Your task to perform on an android device: Search for the best-rated coffee table on Crate & Barrel Image 0: 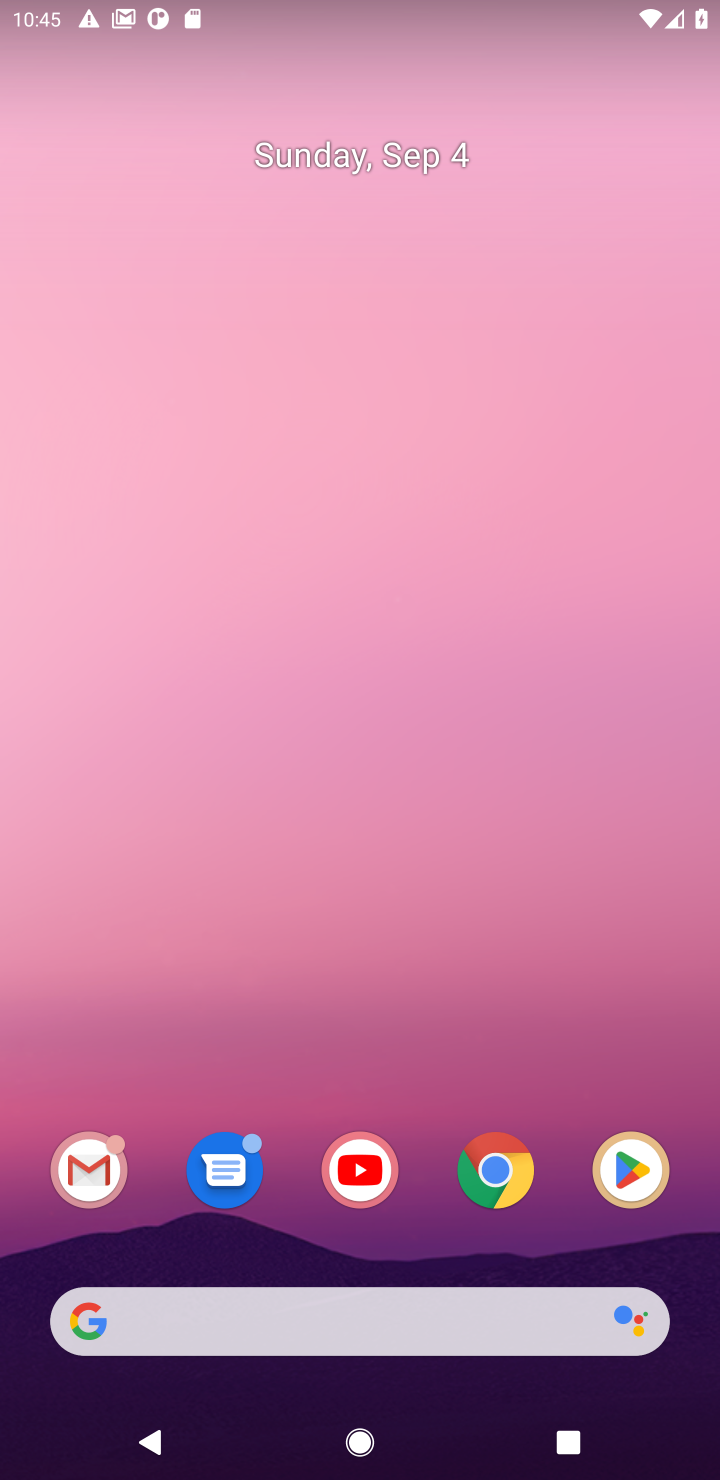
Step 0: drag from (464, 1287) to (274, 8)
Your task to perform on an android device: Search for the best-rated coffee table on Crate & Barrel Image 1: 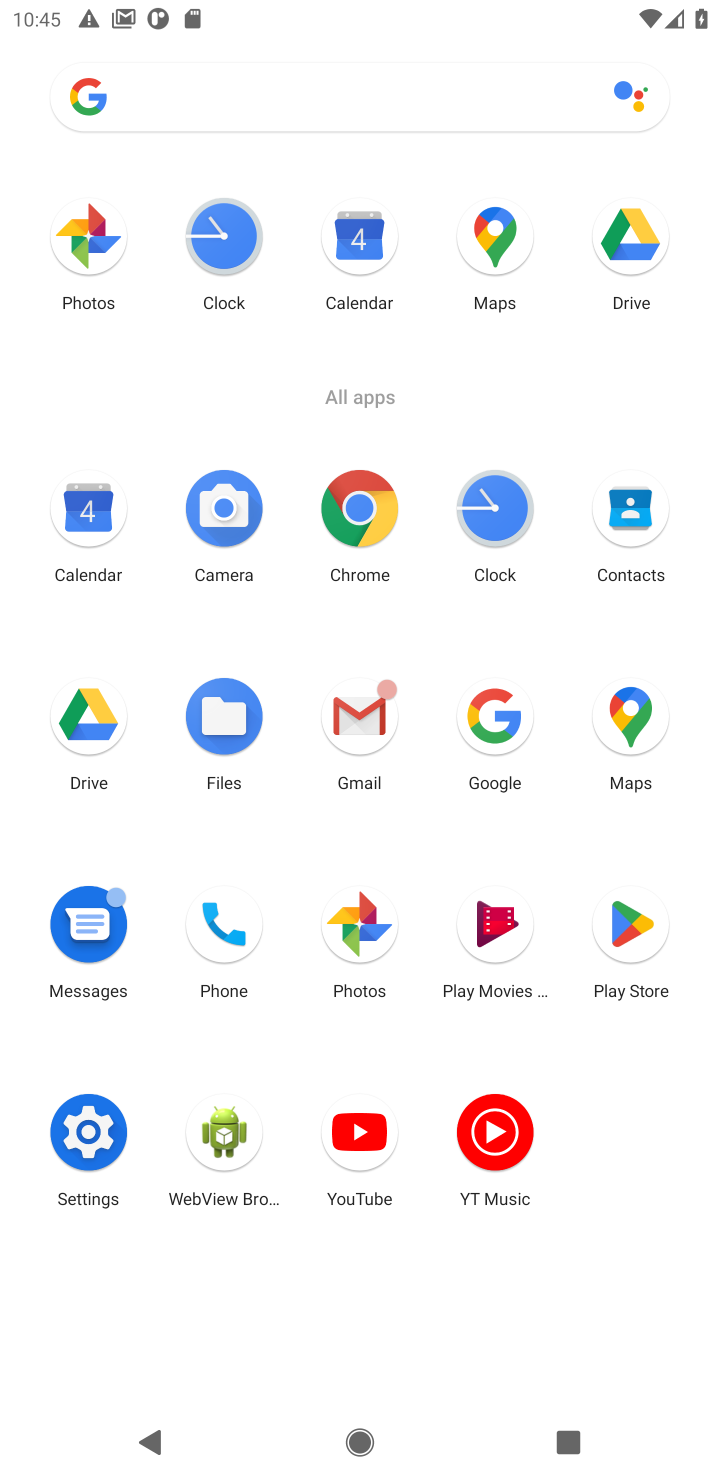
Step 1: click (378, 508)
Your task to perform on an android device: Search for the best-rated coffee table on Crate & Barrel Image 2: 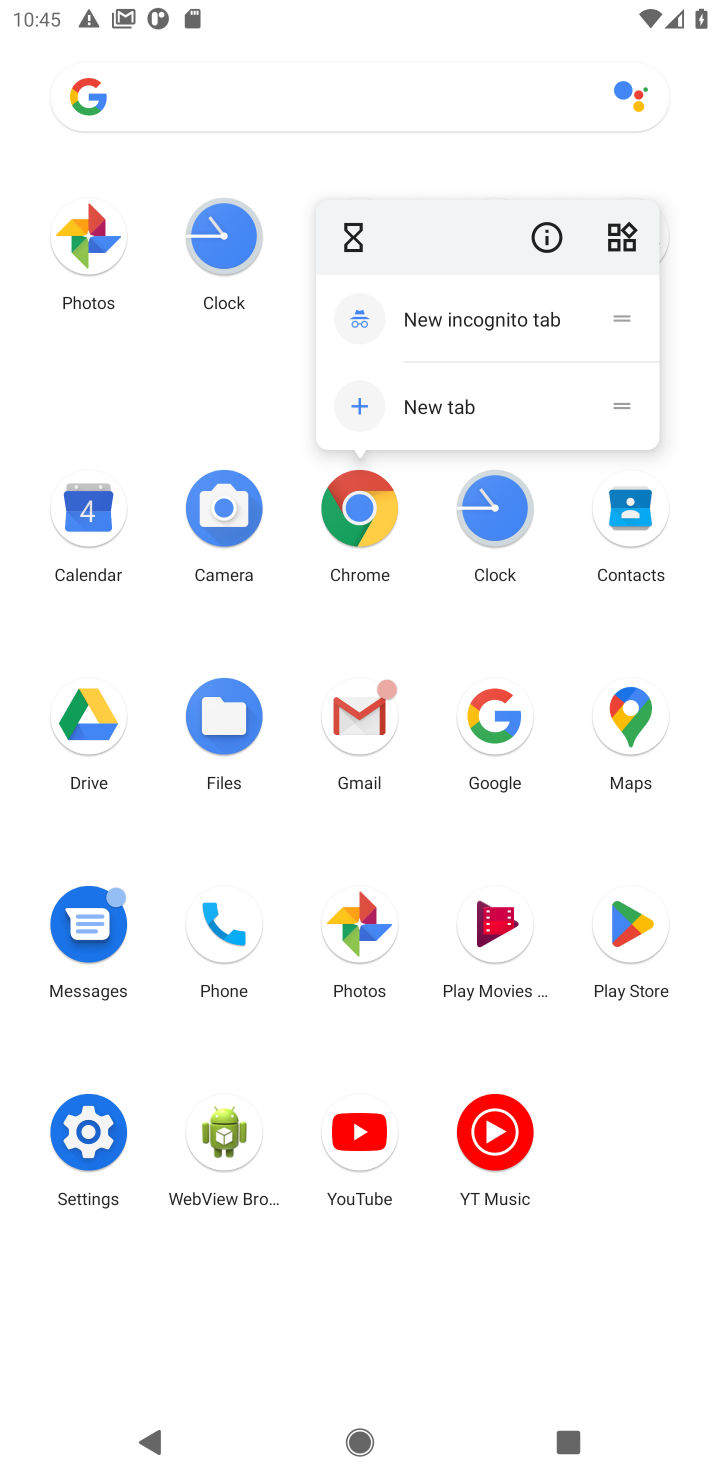
Step 2: click (369, 557)
Your task to perform on an android device: Search for the best-rated coffee table on Crate & Barrel Image 3: 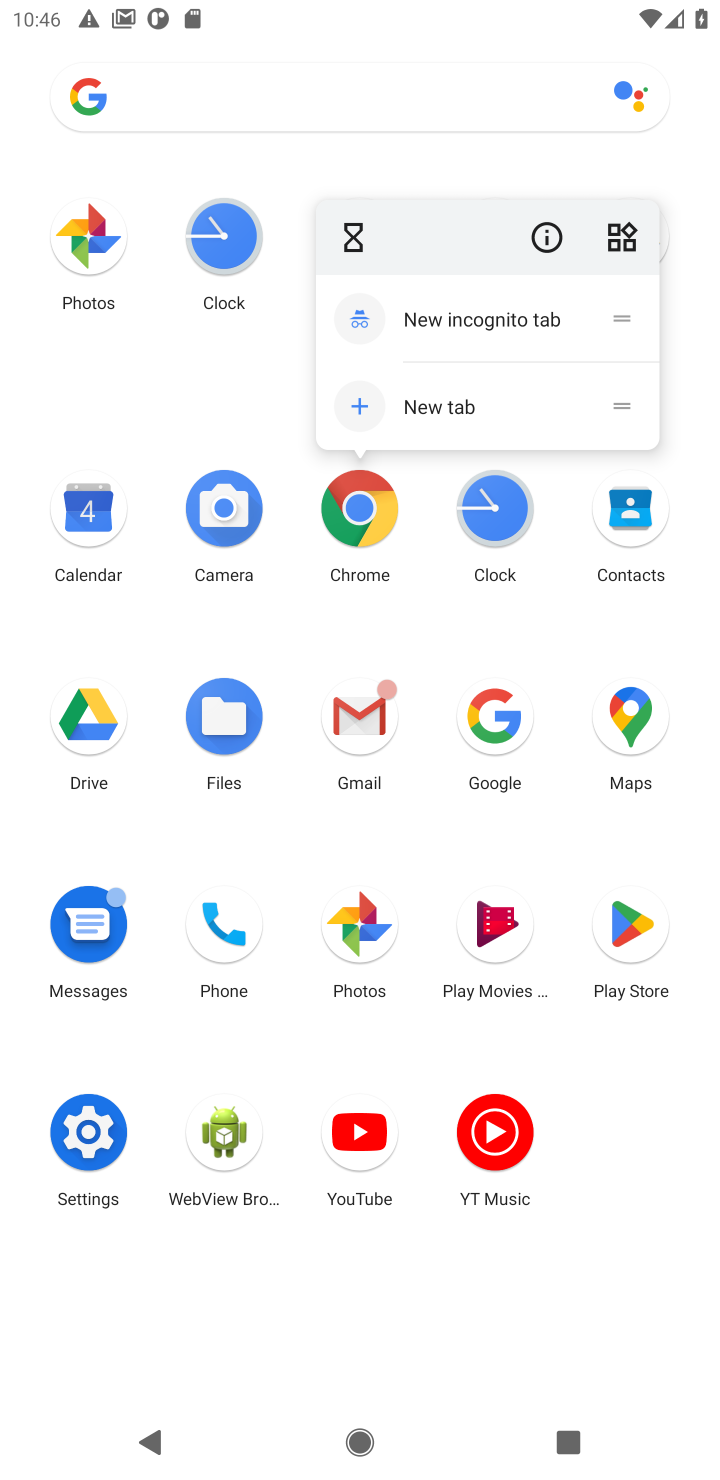
Step 3: click (369, 535)
Your task to perform on an android device: Search for the best-rated coffee table on Crate & Barrel Image 4: 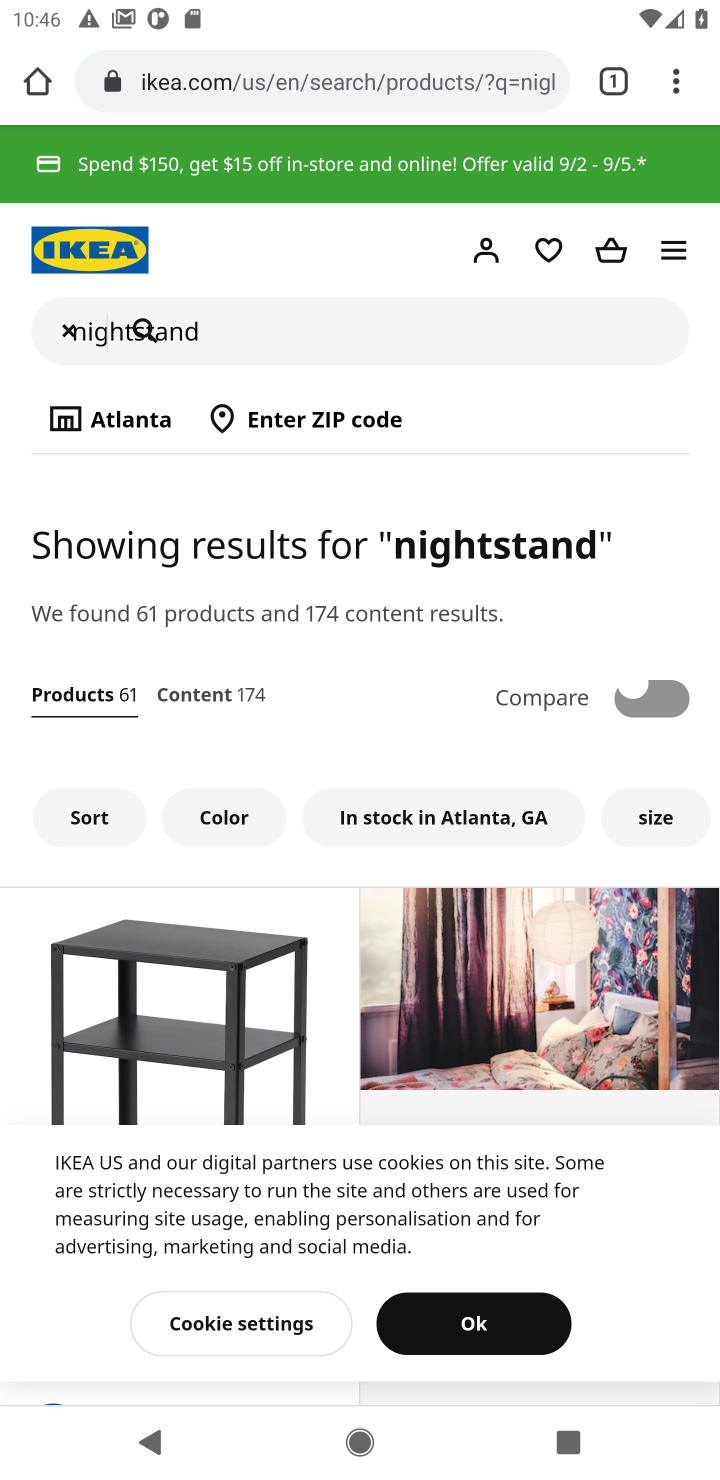
Step 4: press home button
Your task to perform on an android device: Search for the best-rated coffee table on Crate & Barrel Image 5: 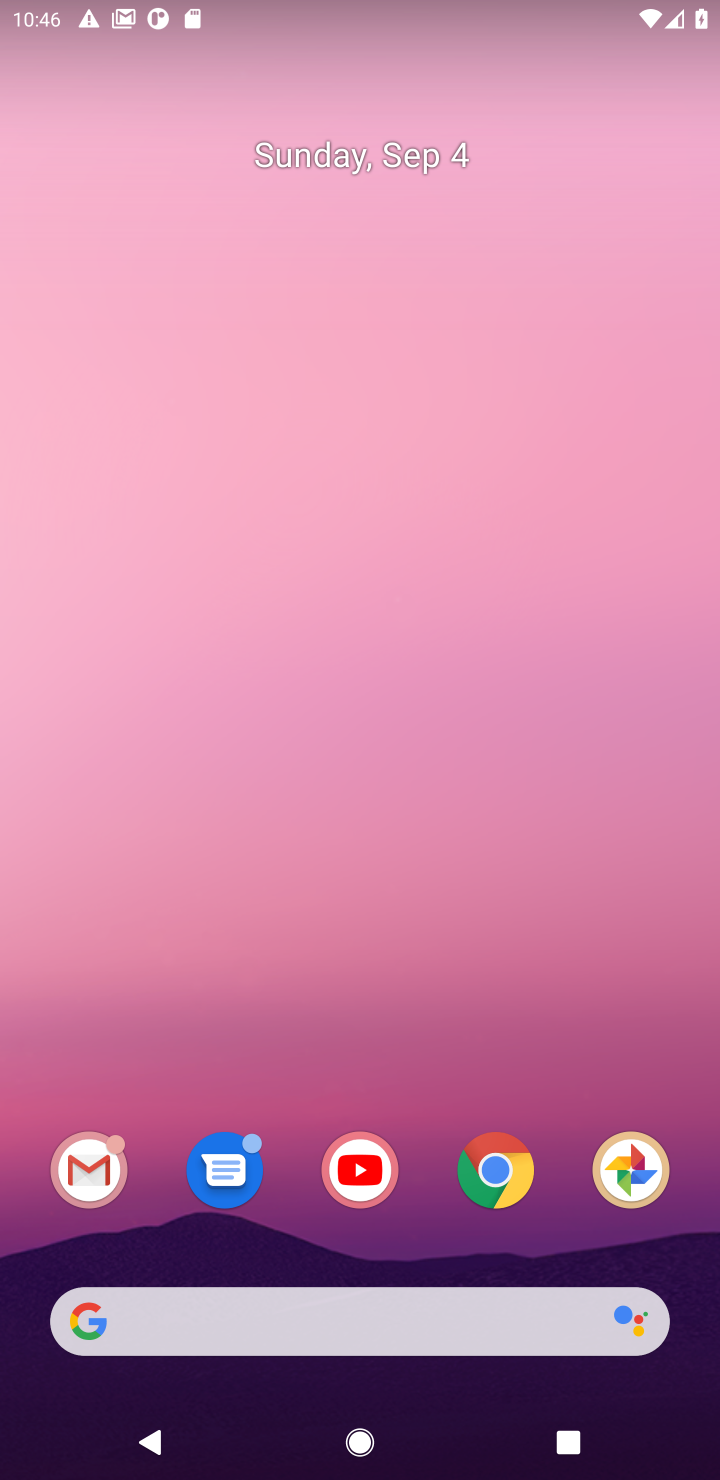
Step 5: click (487, 1207)
Your task to perform on an android device: Search for the best-rated coffee table on Crate & Barrel Image 6: 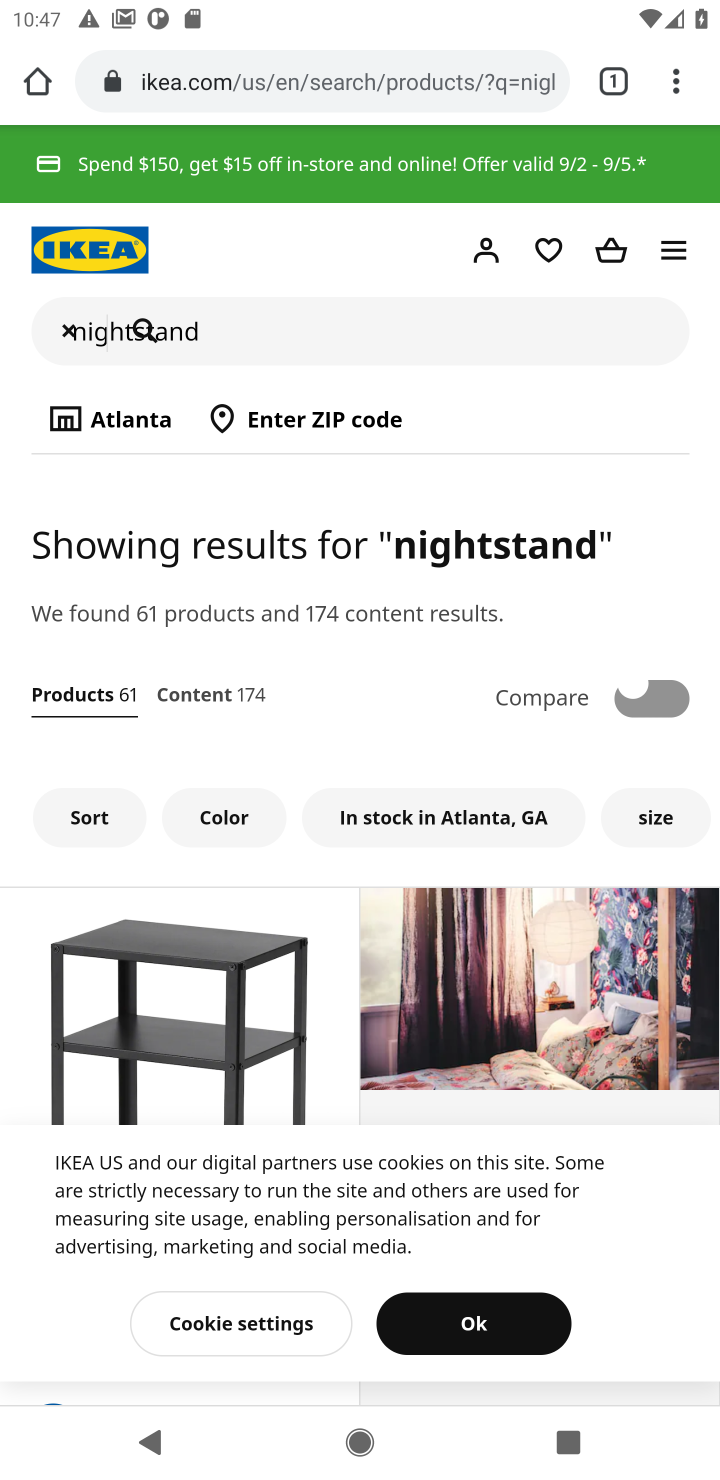
Step 6: click (118, 64)
Your task to perform on an android device: Search for the best-rated coffee table on Crate & Barrel Image 7: 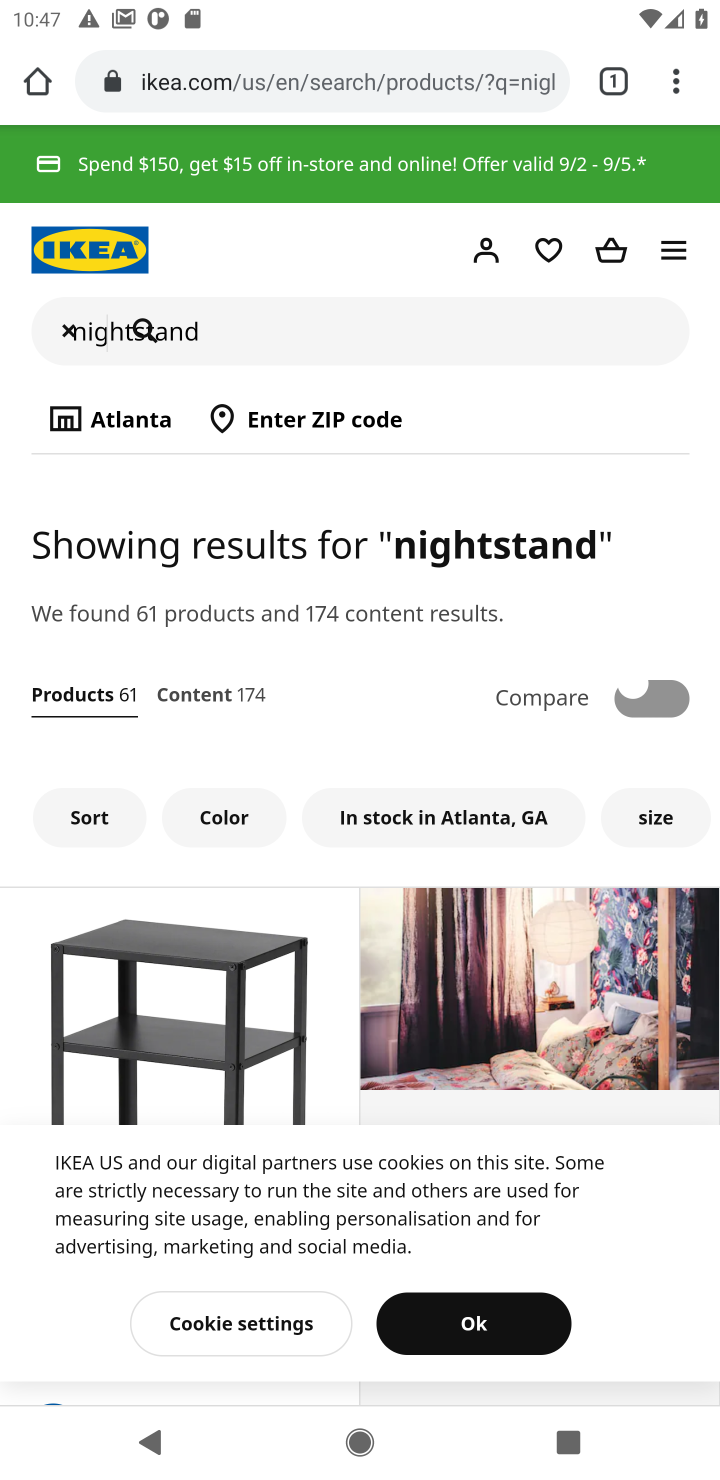
Step 7: click (463, 98)
Your task to perform on an android device: Search for the best-rated coffee table on Crate & Barrel Image 8: 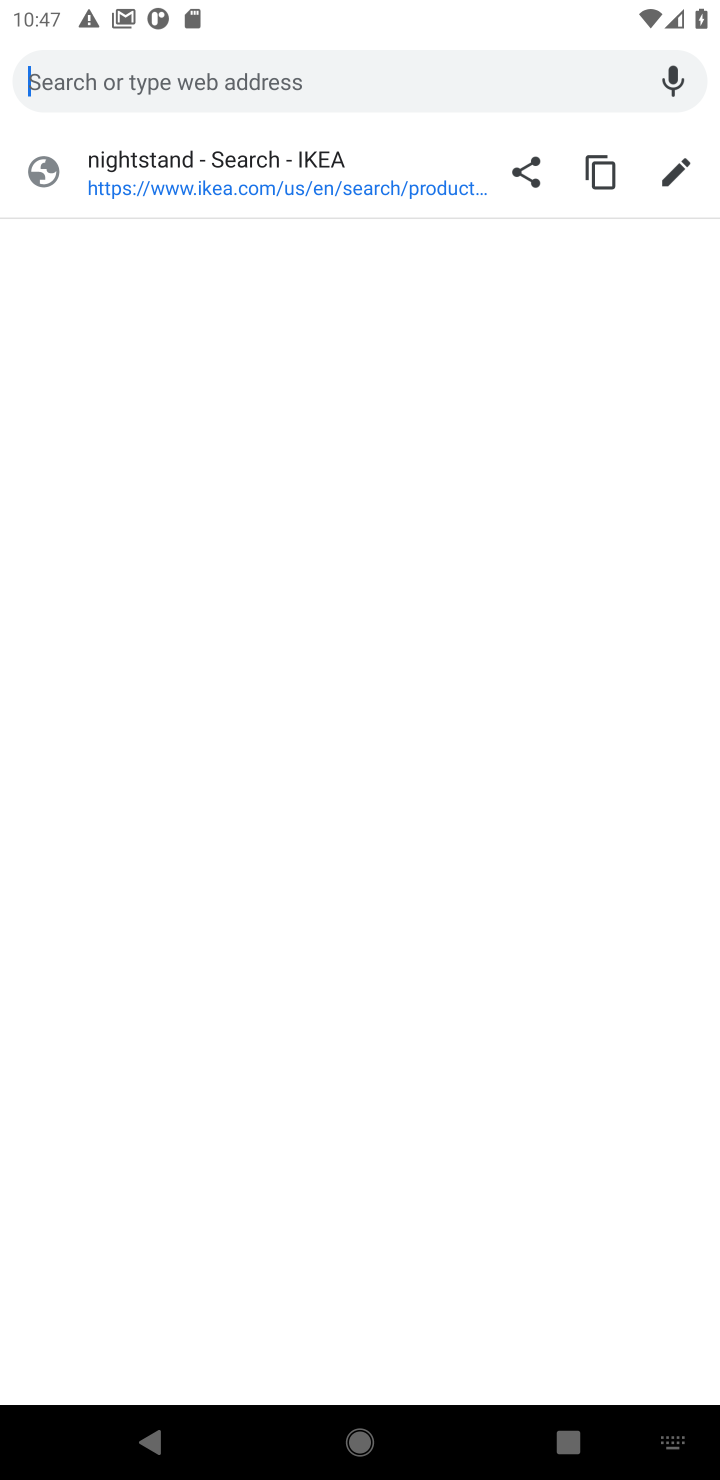
Step 8: type " Crate & Barrel"
Your task to perform on an android device: Search for the best-rated coffee table on Crate & Barrel Image 9: 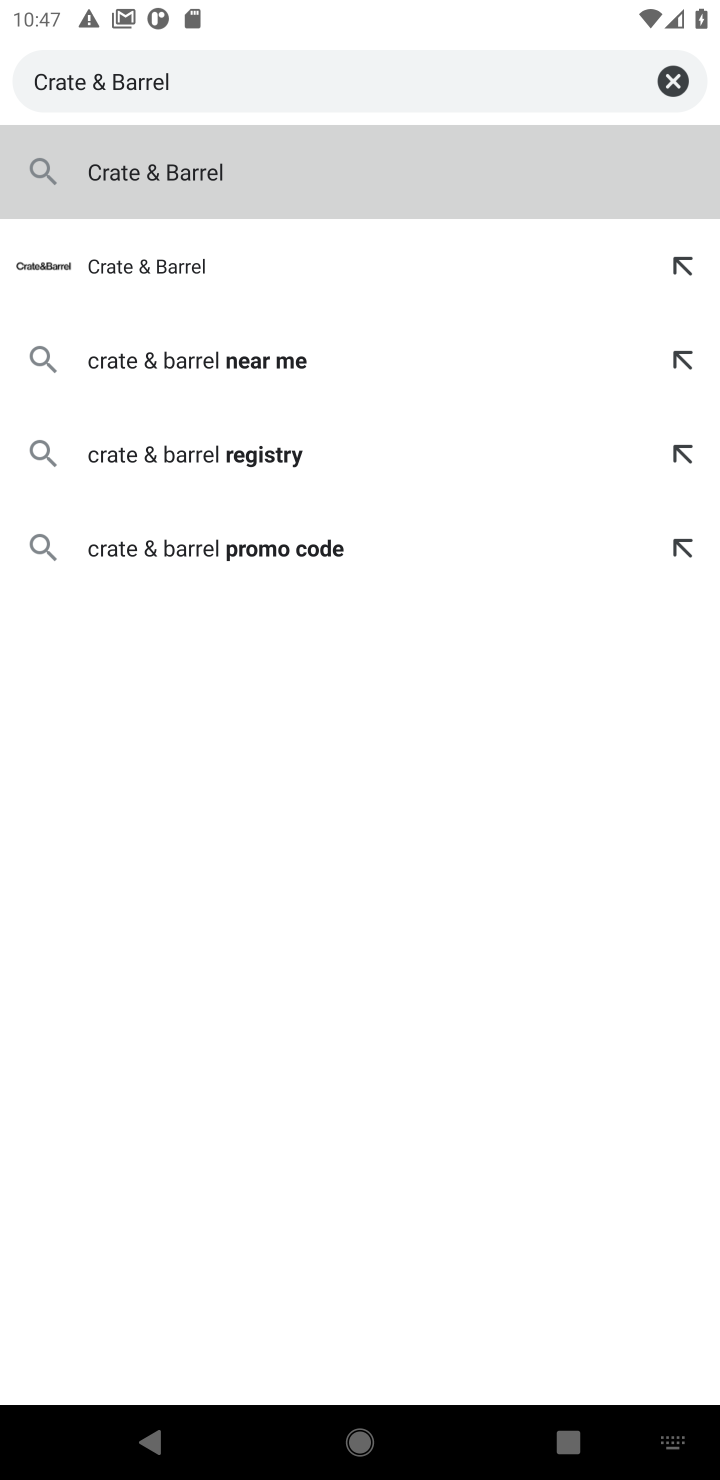
Step 9: click (241, 171)
Your task to perform on an android device: Search for the best-rated coffee table on Crate & Barrel Image 10: 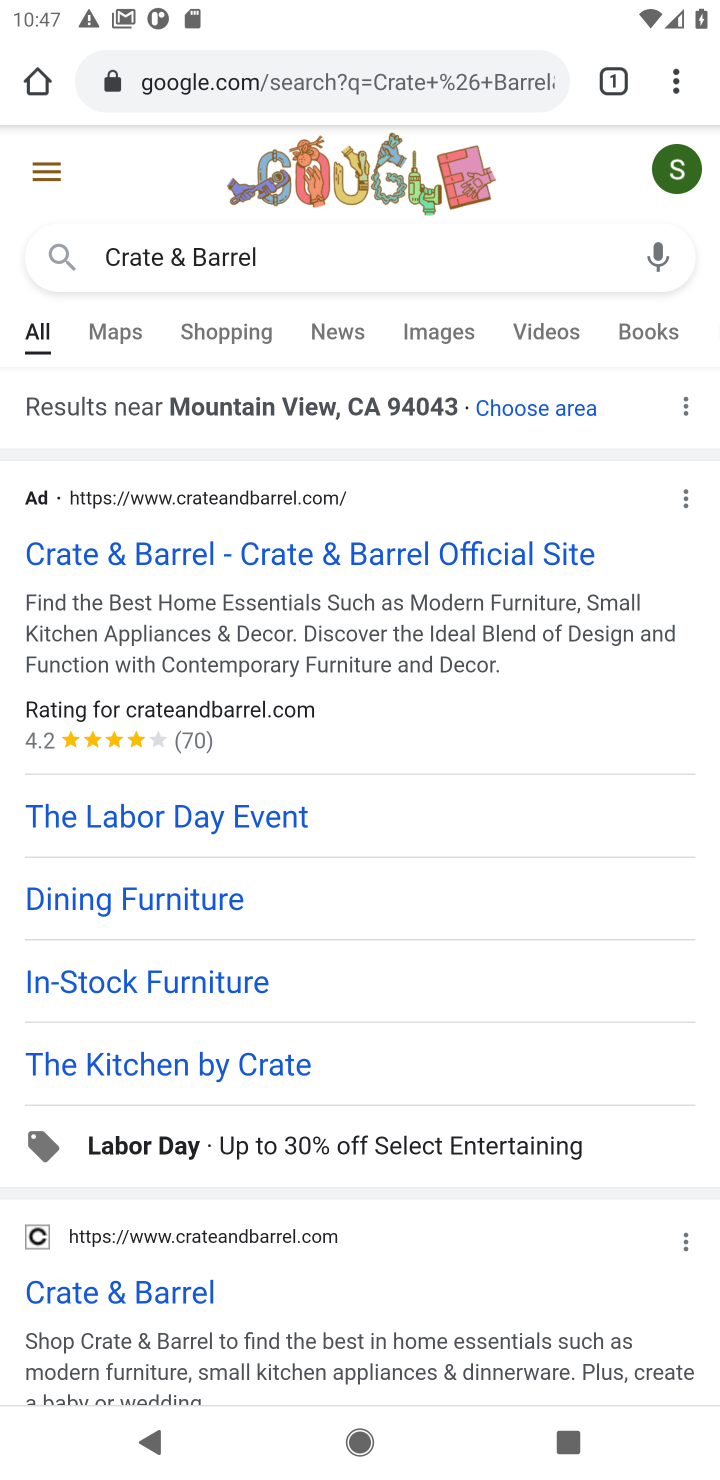
Step 10: click (234, 551)
Your task to perform on an android device: Search for the best-rated coffee table on Crate & Barrel Image 11: 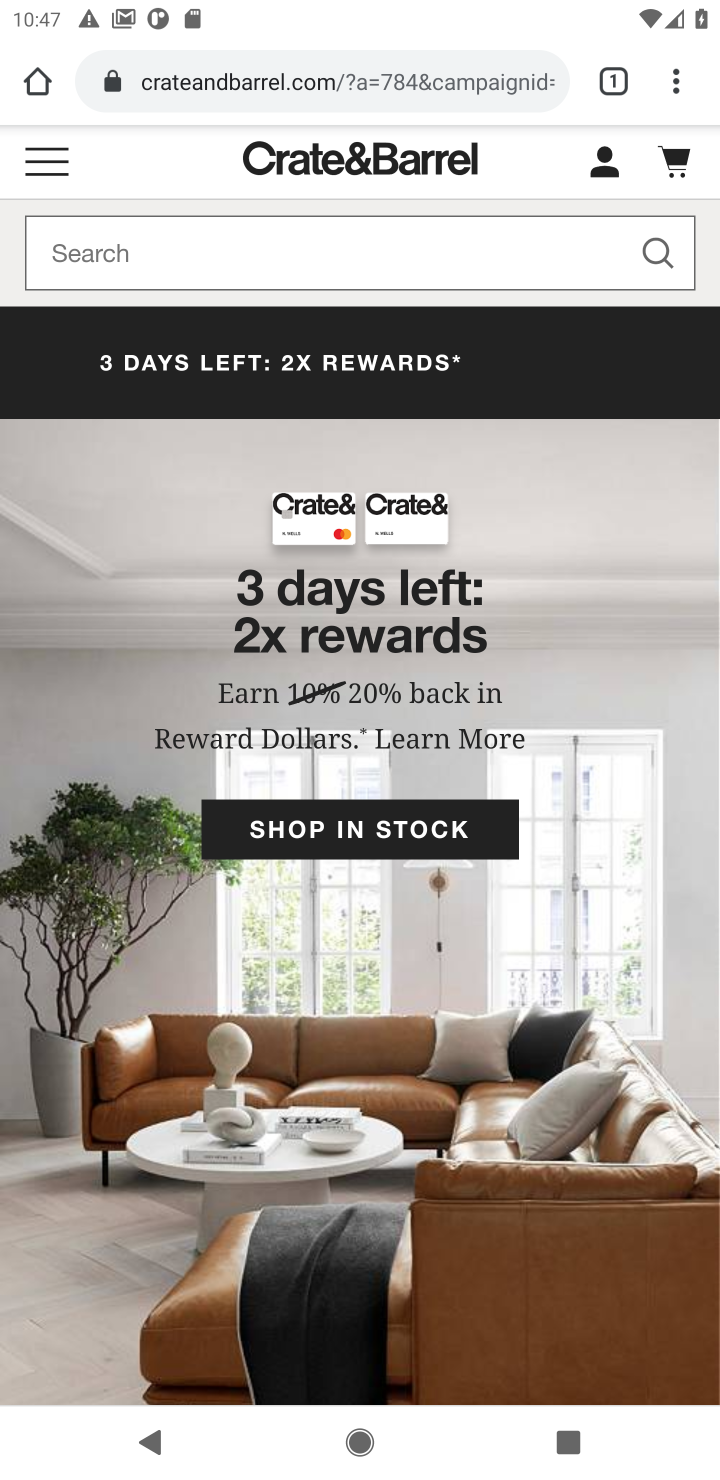
Step 11: click (298, 272)
Your task to perform on an android device: Search for the best-rated coffee table on Crate & Barrel Image 12: 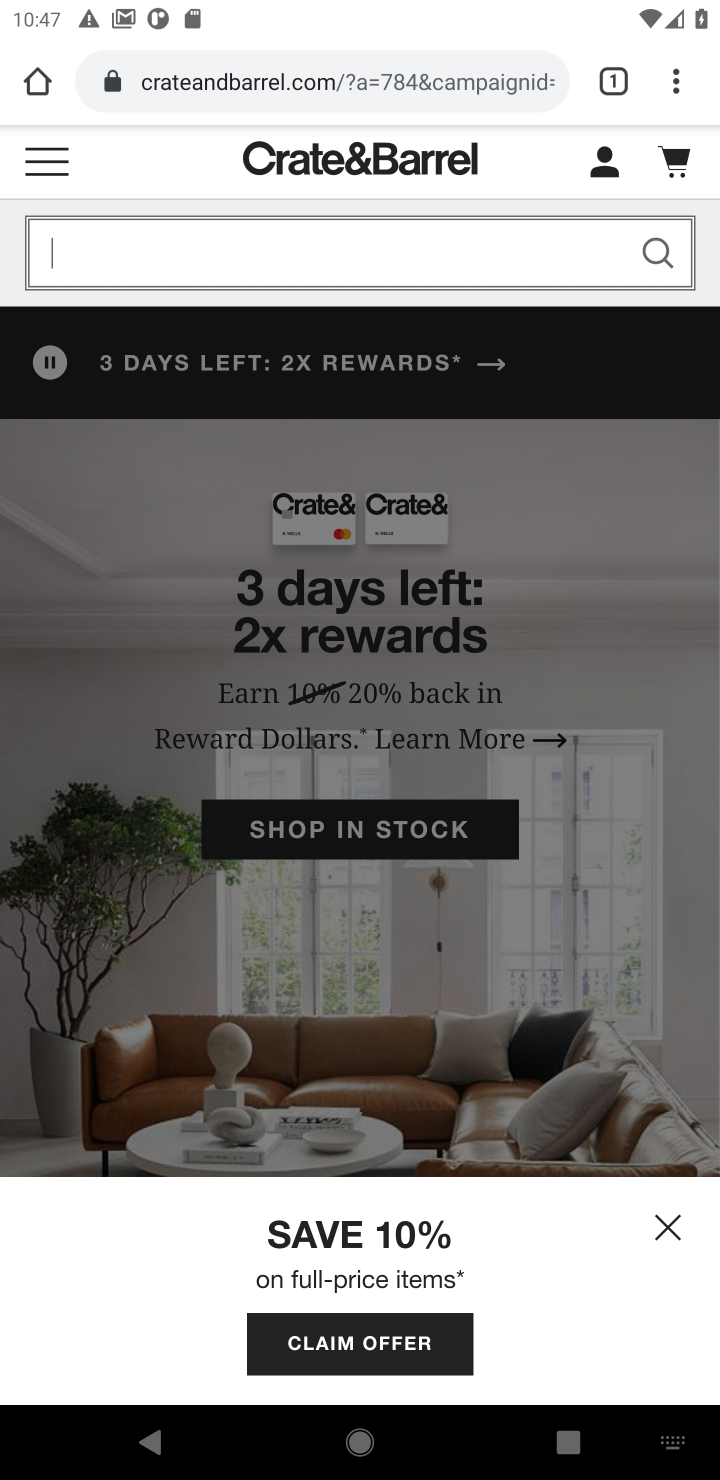
Step 12: type "the best-rated coffee table "
Your task to perform on an android device: Search for the best-rated coffee table on Crate & Barrel Image 13: 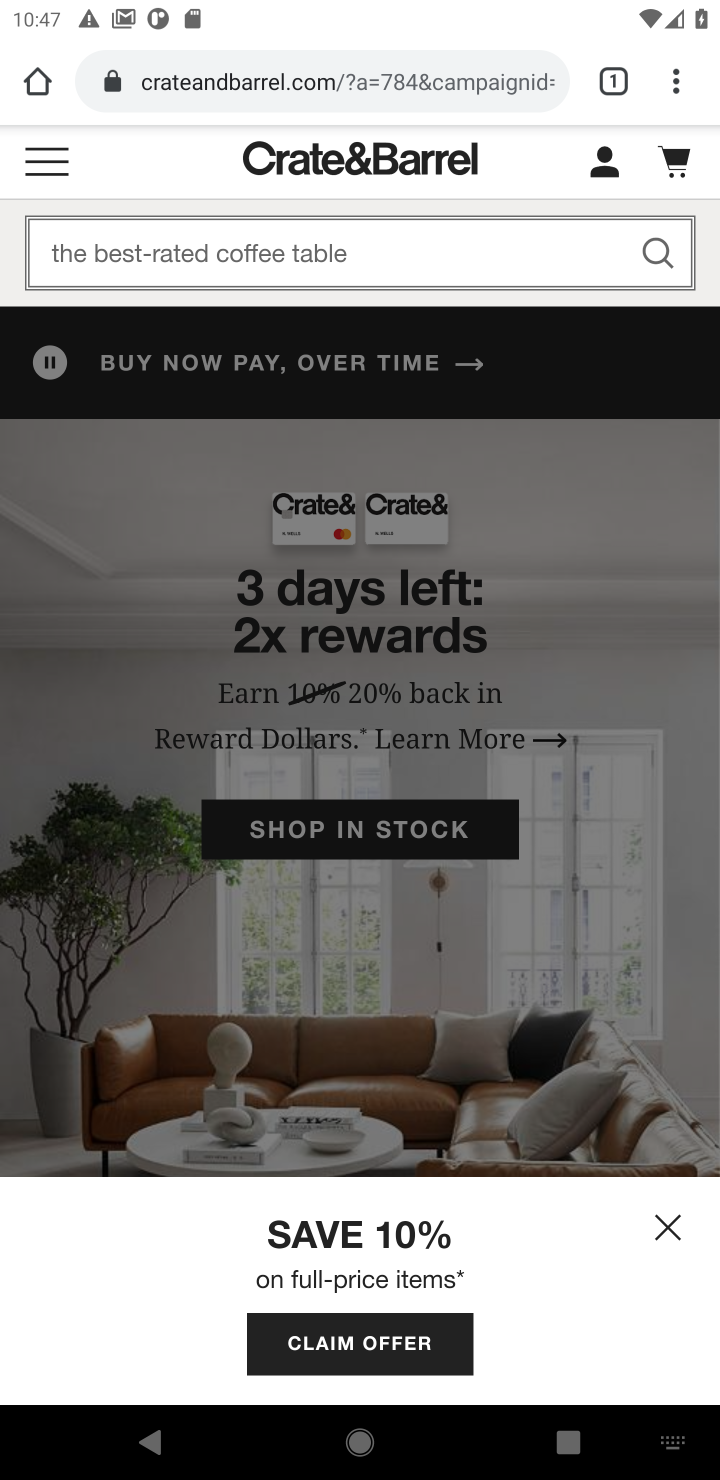
Step 13: click (661, 254)
Your task to perform on an android device: Search for the best-rated coffee table on Crate & Barrel Image 14: 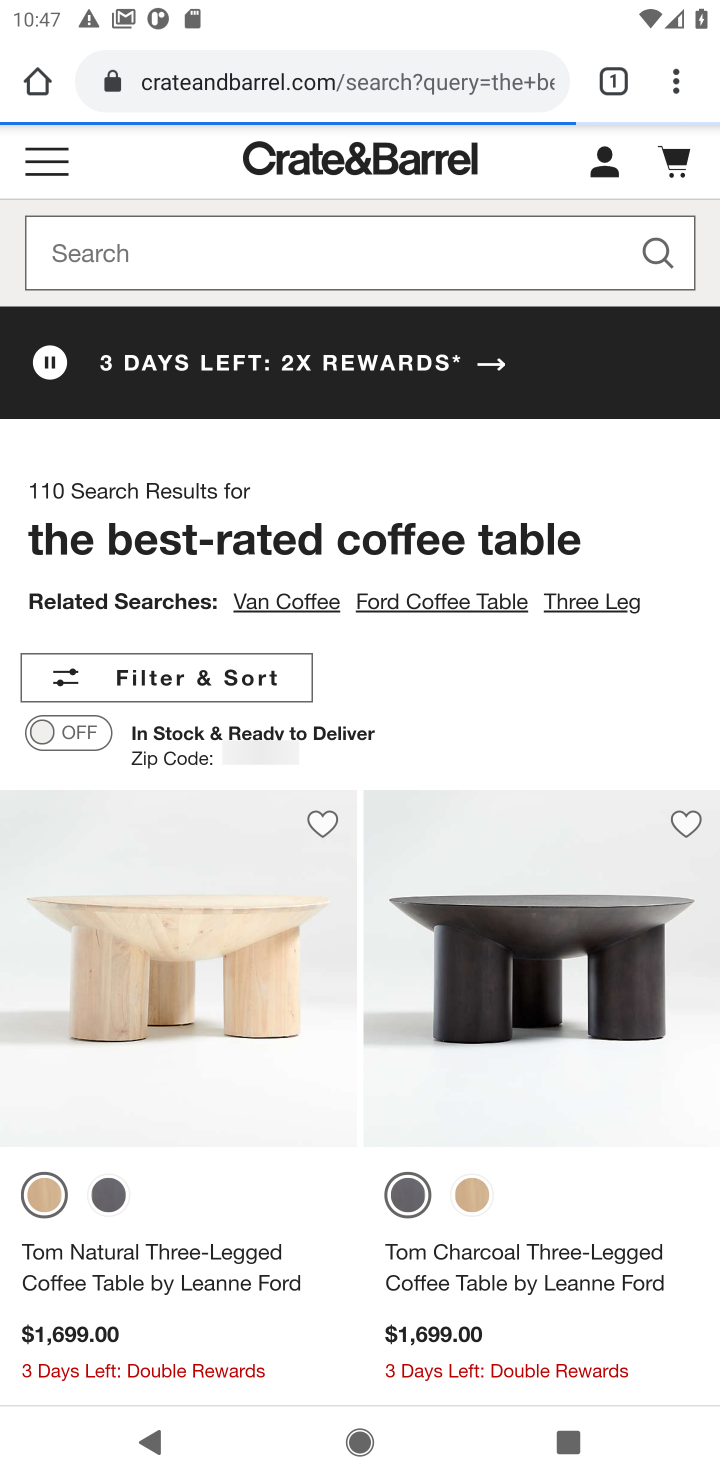
Step 14: task complete